Your task to perform on an android device: Go to settings Image 0: 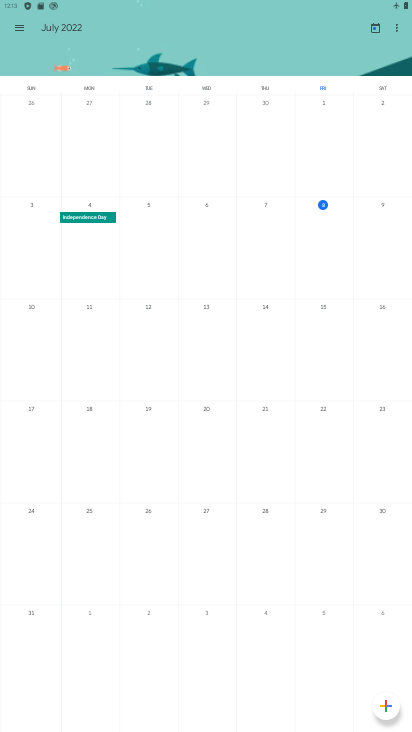
Step 0: press home button
Your task to perform on an android device: Go to settings Image 1: 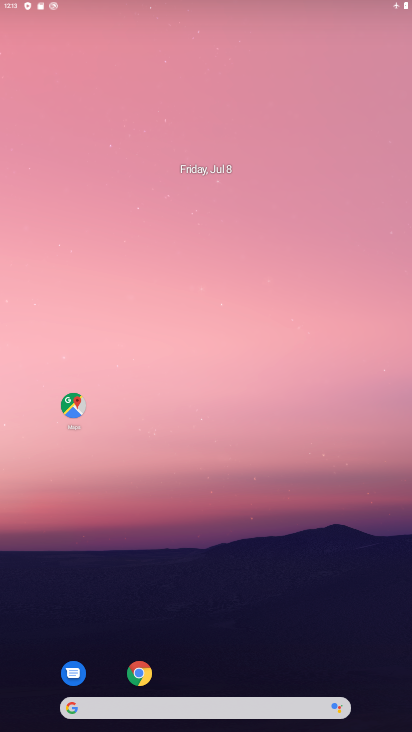
Step 1: drag from (203, 669) to (218, 123)
Your task to perform on an android device: Go to settings Image 2: 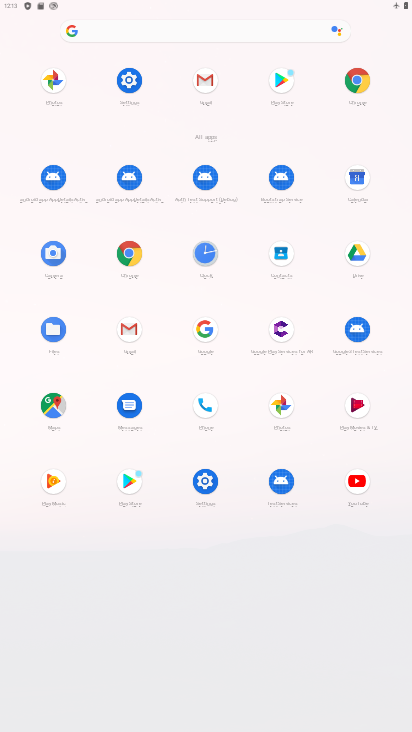
Step 2: click (127, 78)
Your task to perform on an android device: Go to settings Image 3: 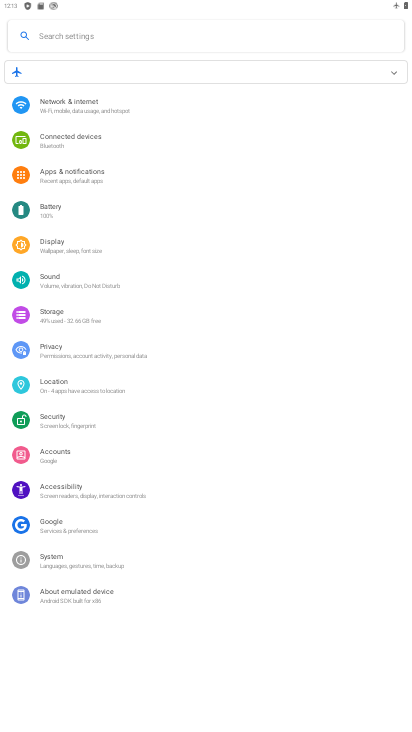
Step 3: task complete